Your task to perform on an android device: Open accessibility settings Image 0: 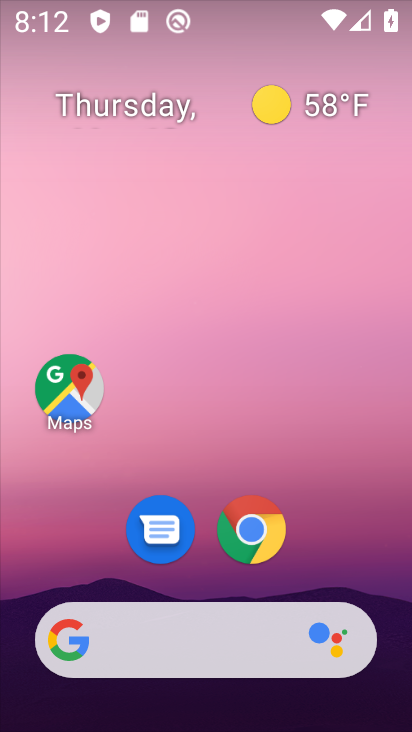
Step 0: drag from (223, 562) to (243, 71)
Your task to perform on an android device: Open accessibility settings Image 1: 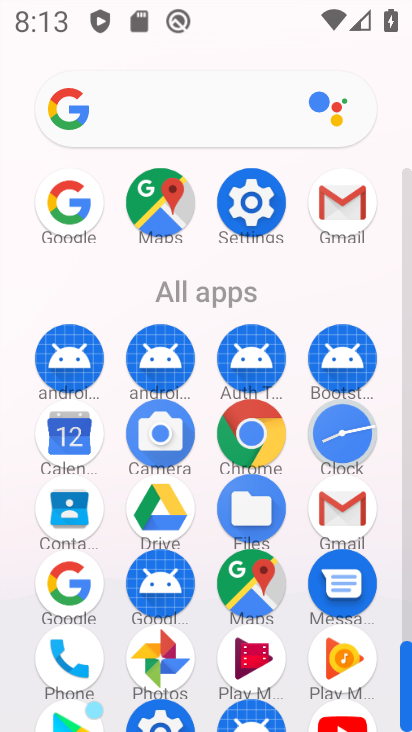
Step 1: click (251, 197)
Your task to perform on an android device: Open accessibility settings Image 2: 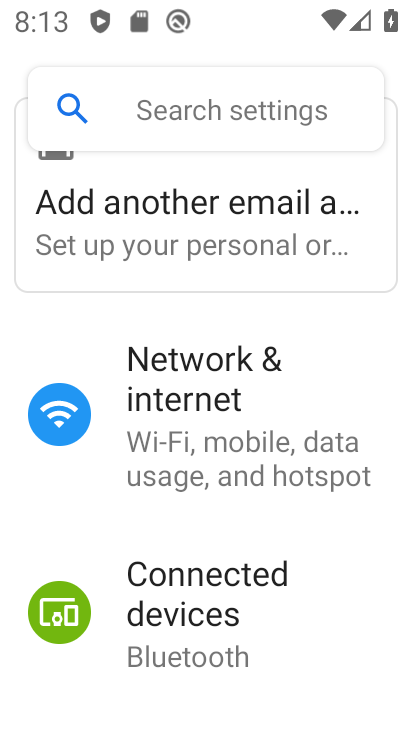
Step 2: drag from (236, 644) to (226, 0)
Your task to perform on an android device: Open accessibility settings Image 3: 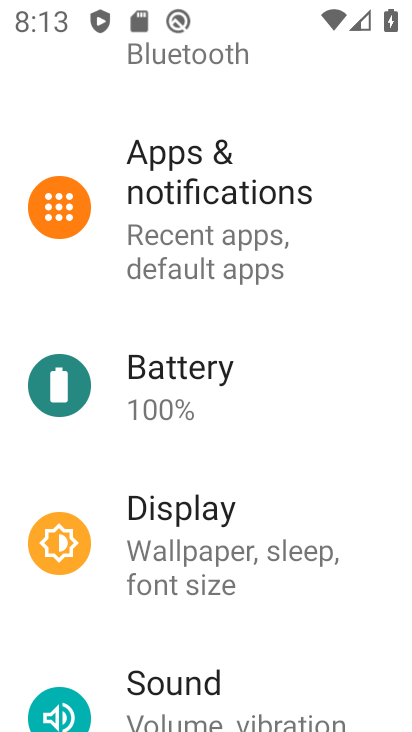
Step 3: drag from (275, 616) to (354, 19)
Your task to perform on an android device: Open accessibility settings Image 4: 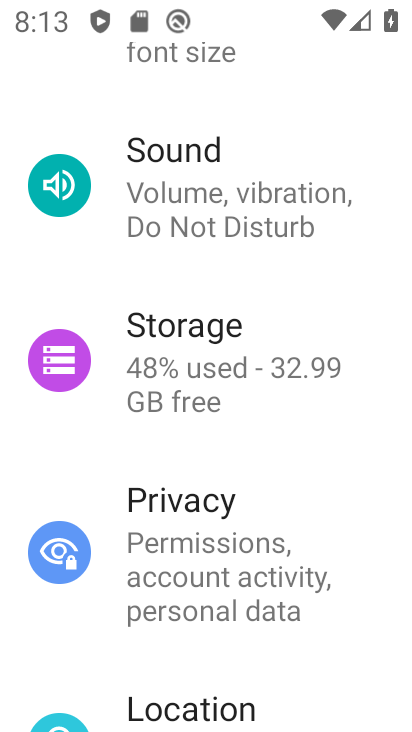
Step 4: drag from (273, 644) to (314, 87)
Your task to perform on an android device: Open accessibility settings Image 5: 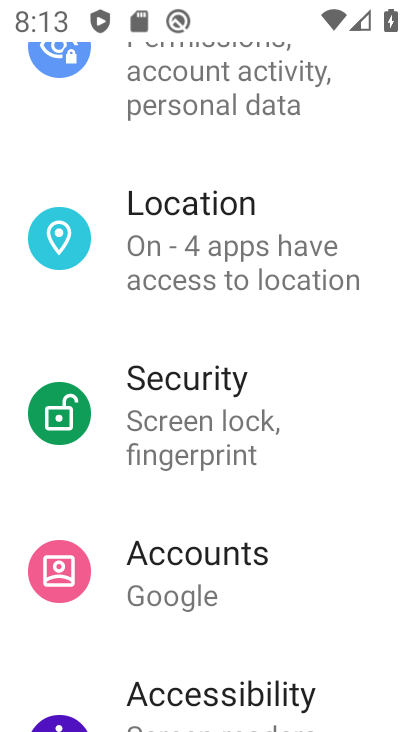
Step 5: drag from (215, 611) to (240, 193)
Your task to perform on an android device: Open accessibility settings Image 6: 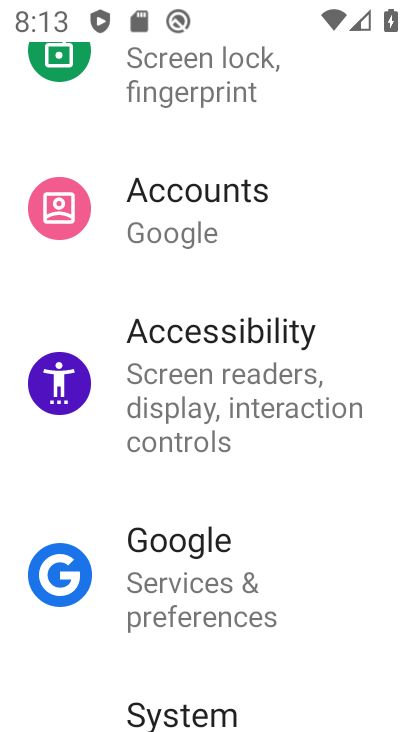
Step 6: click (165, 410)
Your task to perform on an android device: Open accessibility settings Image 7: 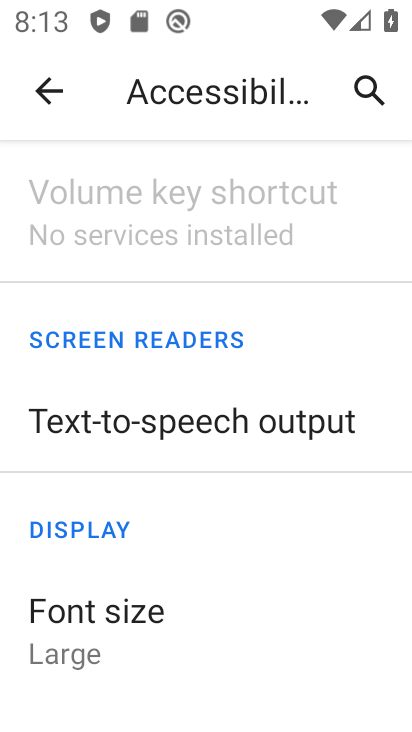
Step 7: task complete